Your task to perform on an android device: Go to notification settings Image 0: 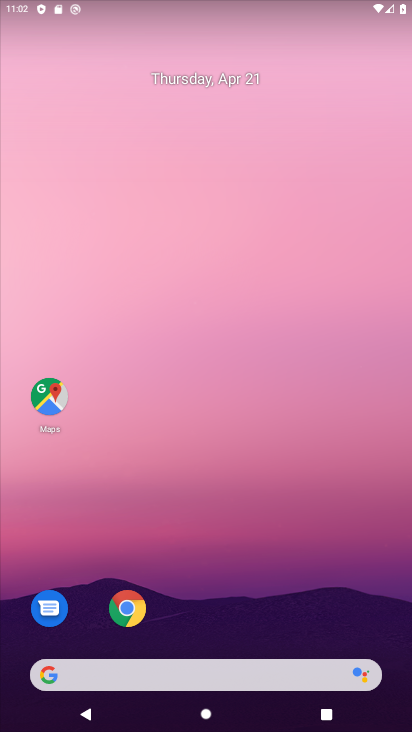
Step 0: drag from (176, 624) to (176, 198)
Your task to perform on an android device: Go to notification settings Image 1: 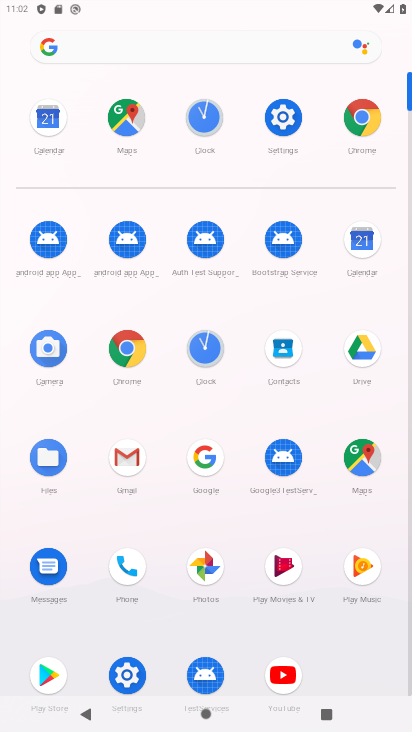
Step 1: click (288, 123)
Your task to perform on an android device: Go to notification settings Image 2: 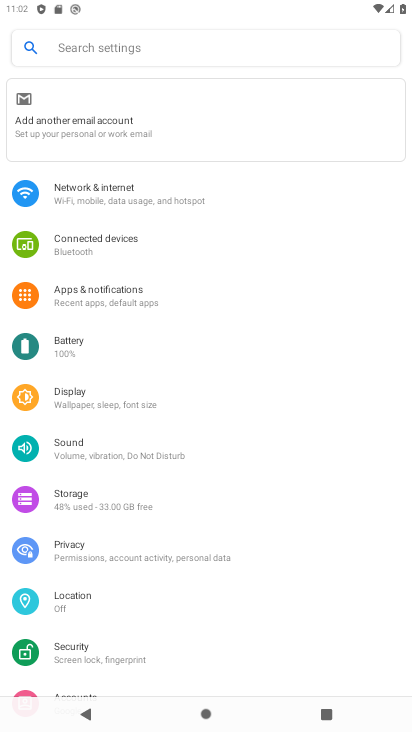
Step 2: click (80, 293)
Your task to perform on an android device: Go to notification settings Image 3: 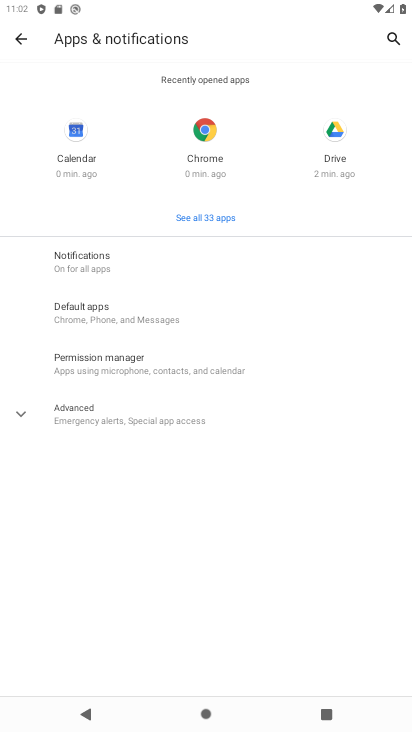
Step 3: click (86, 262)
Your task to perform on an android device: Go to notification settings Image 4: 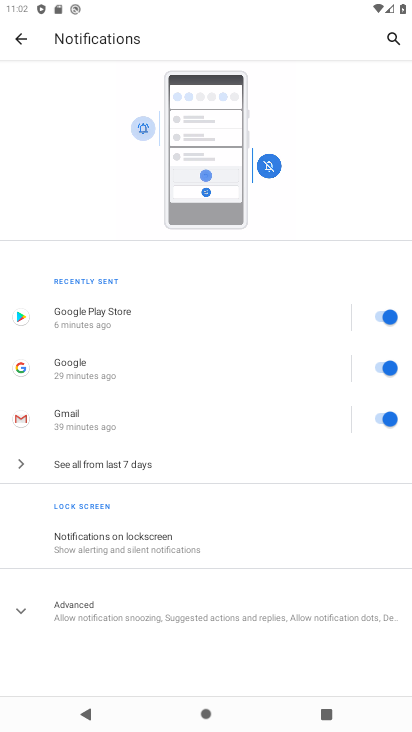
Step 4: task complete